Your task to perform on an android device: Turn off the flashlight Image 0: 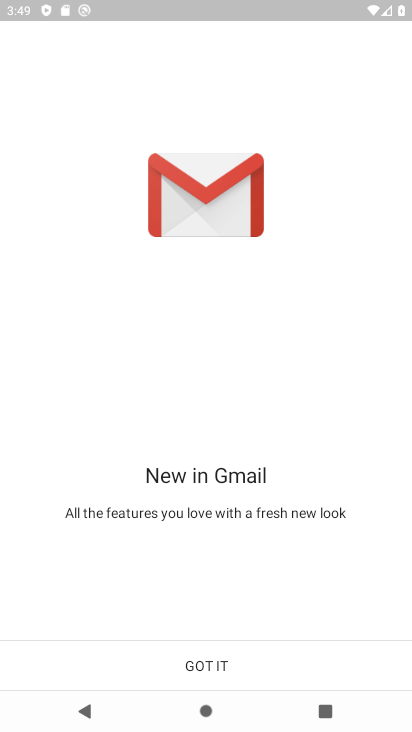
Step 0: press home button
Your task to perform on an android device: Turn off the flashlight Image 1: 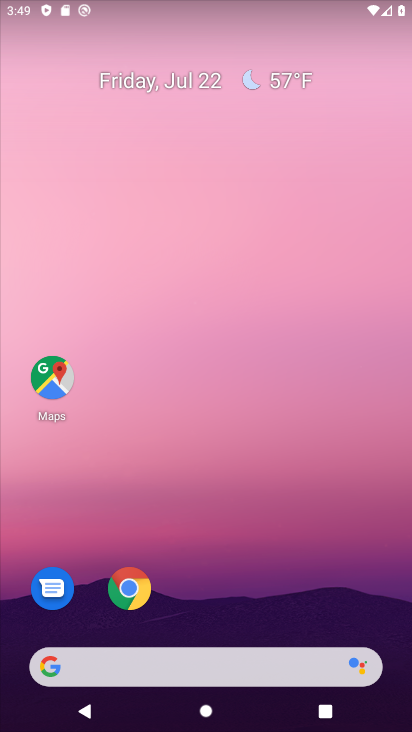
Step 1: drag from (225, 623) to (225, 49)
Your task to perform on an android device: Turn off the flashlight Image 2: 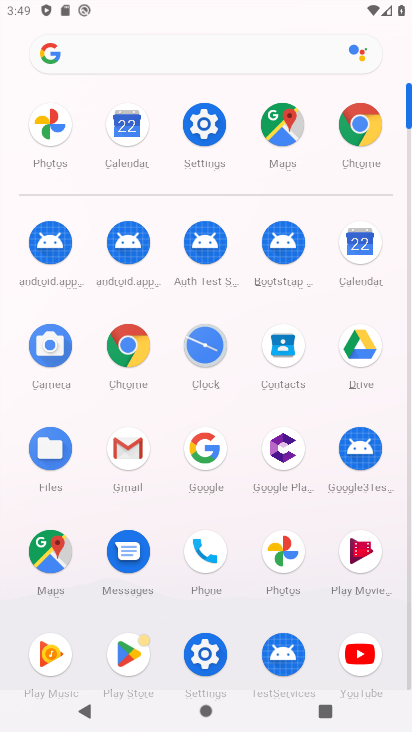
Step 2: click (222, 651)
Your task to perform on an android device: Turn off the flashlight Image 3: 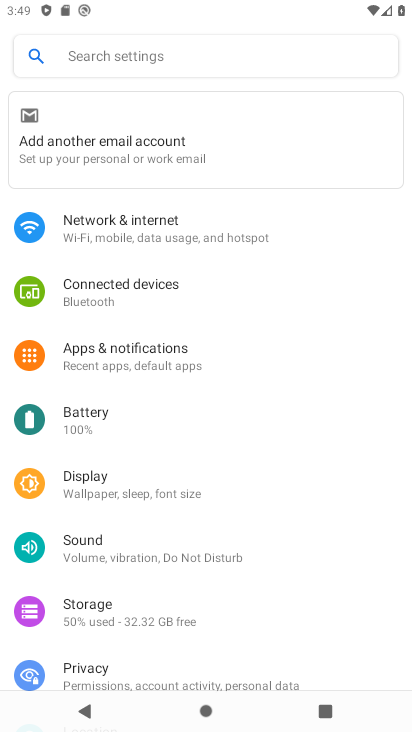
Step 3: task complete